Your task to perform on an android device: Go to eBay Image 0: 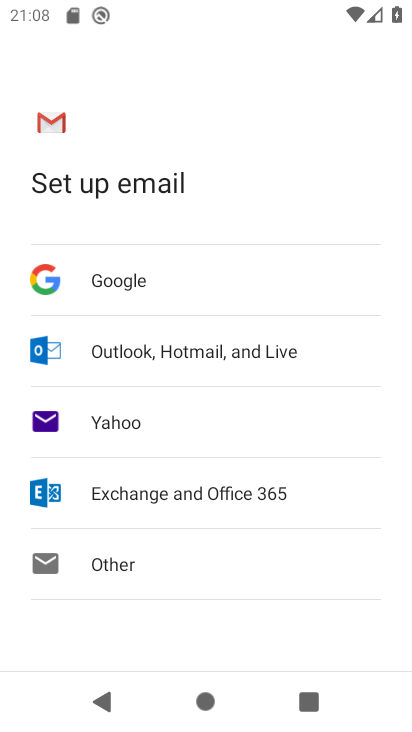
Step 0: press home button
Your task to perform on an android device: Go to eBay Image 1: 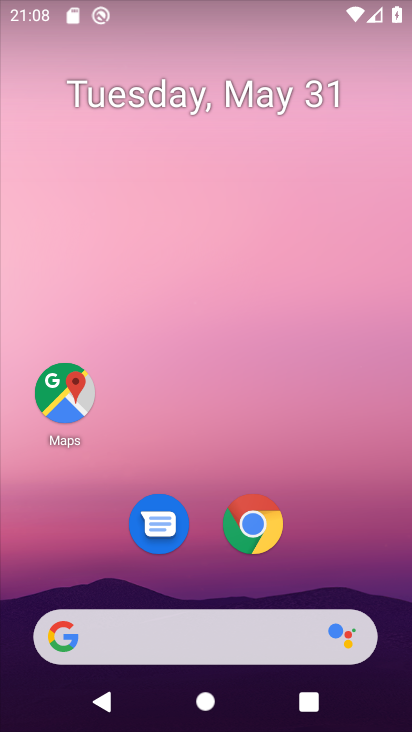
Step 1: click (183, 642)
Your task to perform on an android device: Go to eBay Image 2: 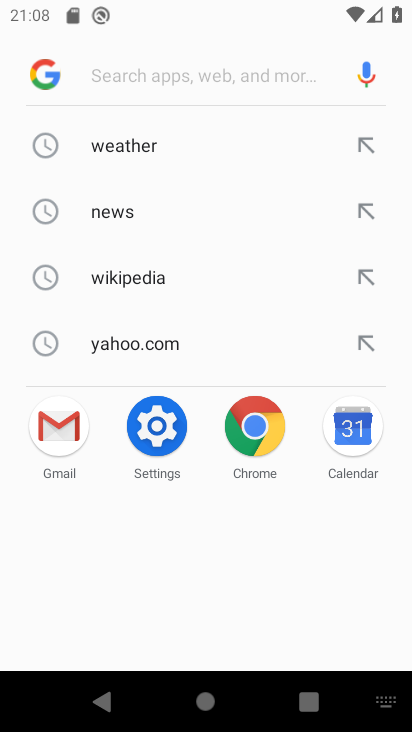
Step 2: type "ebay"
Your task to perform on an android device: Go to eBay Image 3: 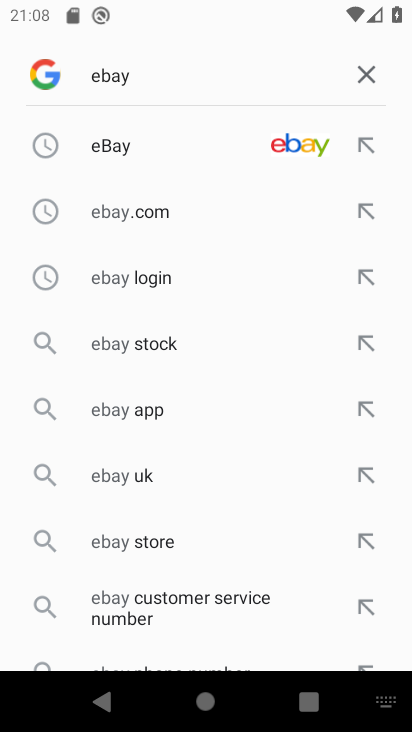
Step 3: click (106, 138)
Your task to perform on an android device: Go to eBay Image 4: 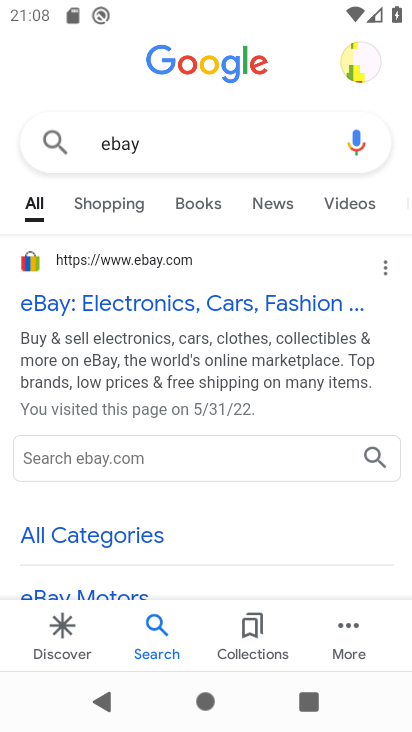
Step 4: click (47, 297)
Your task to perform on an android device: Go to eBay Image 5: 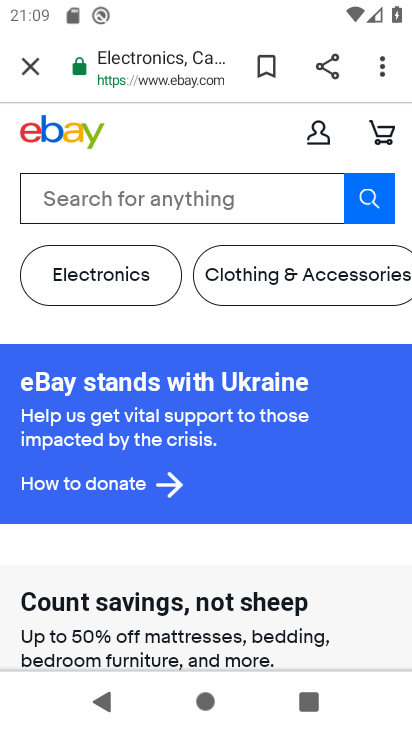
Step 5: task complete